Your task to perform on an android device: change the clock display to digital Image 0: 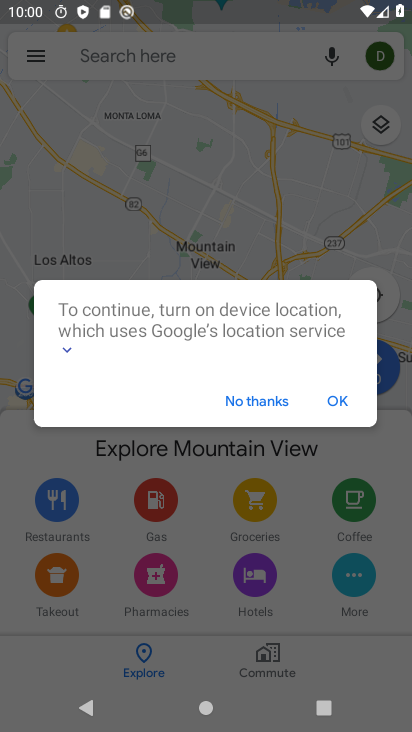
Step 0: press home button
Your task to perform on an android device: change the clock display to digital Image 1: 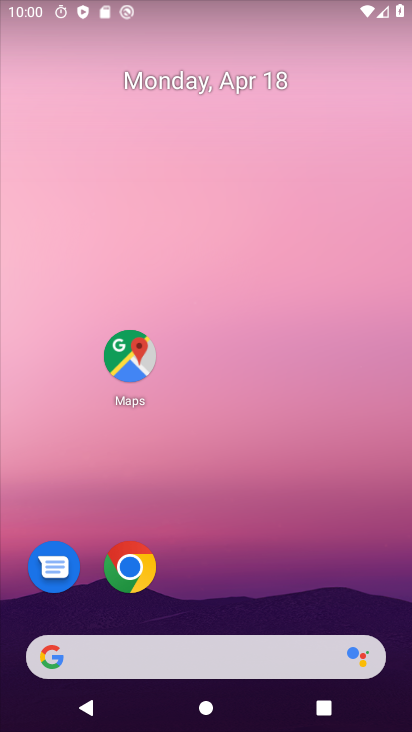
Step 1: drag from (258, 682) to (354, 238)
Your task to perform on an android device: change the clock display to digital Image 2: 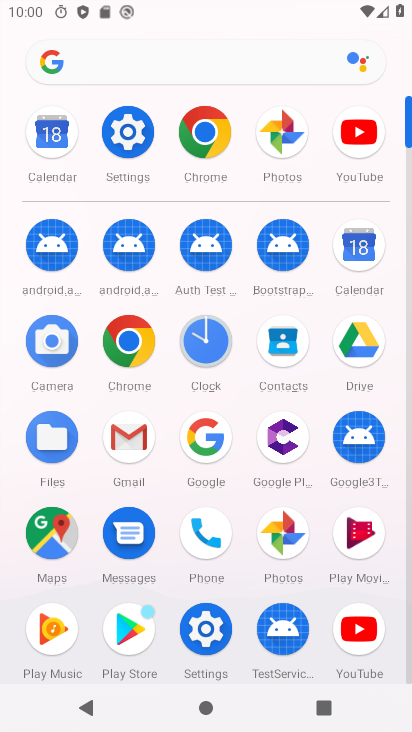
Step 2: click (207, 354)
Your task to perform on an android device: change the clock display to digital Image 3: 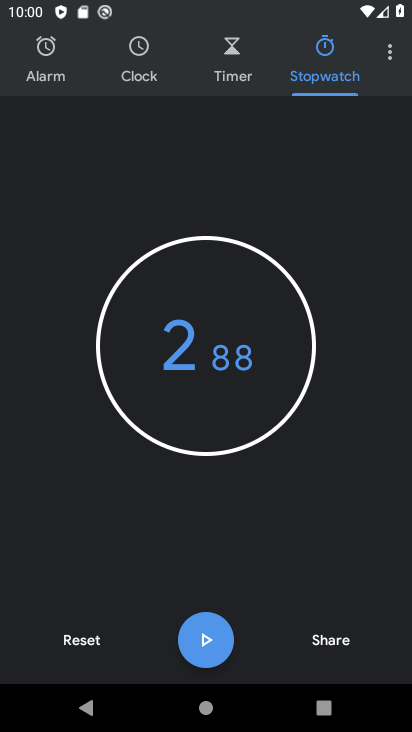
Step 3: click (392, 59)
Your task to perform on an android device: change the clock display to digital Image 4: 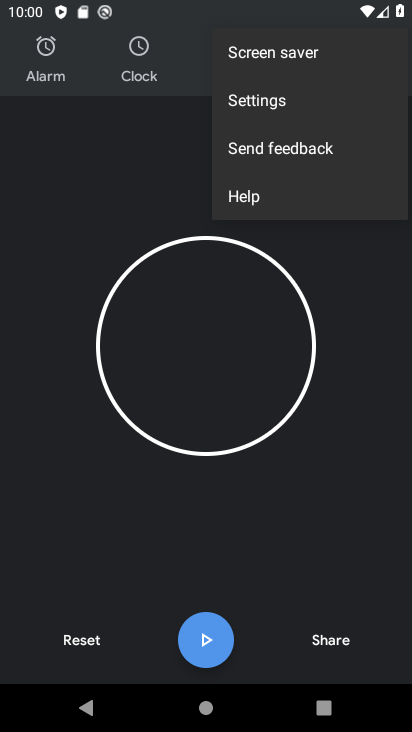
Step 4: click (232, 97)
Your task to perform on an android device: change the clock display to digital Image 5: 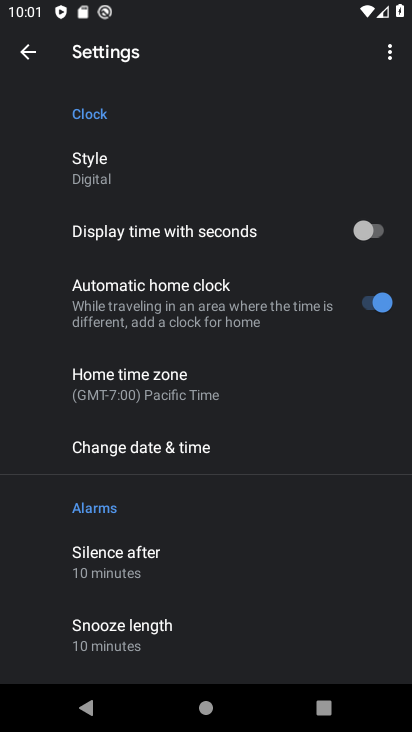
Step 5: click (181, 160)
Your task to perform on an android device: change the clock display to digital Image 6: 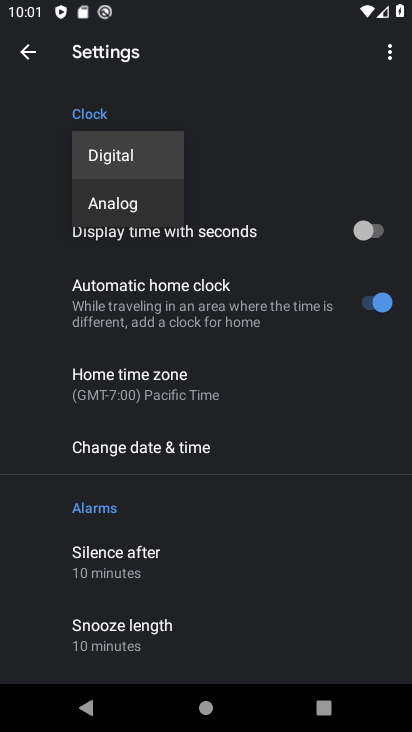
Step 6: click (155, 162)
Your task to perform on an android device: change the clock display to digital Image 7: 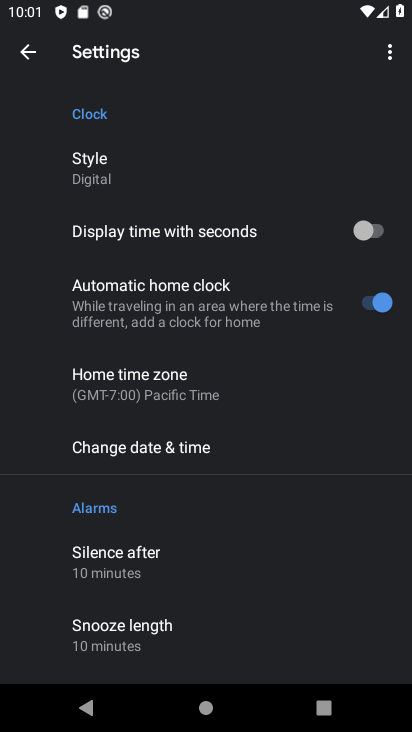
Step 7: task complete